Your task to perform on an android device: set the timer Image 0: 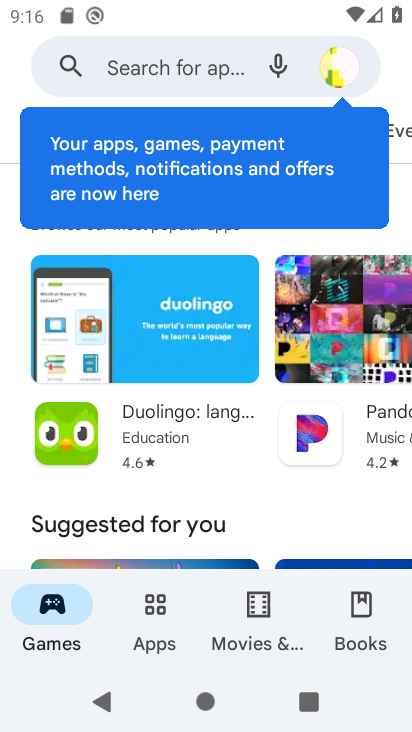
Step 0: press home button
Your task to perform on an android device: set the timer Image 1: 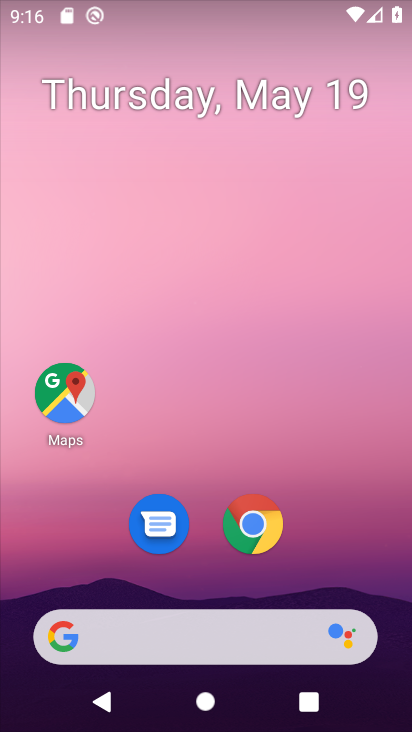
Step 1: drag from (205, 444) to (288, 61)
Your task to perform on an android device: set the timer Image 2: 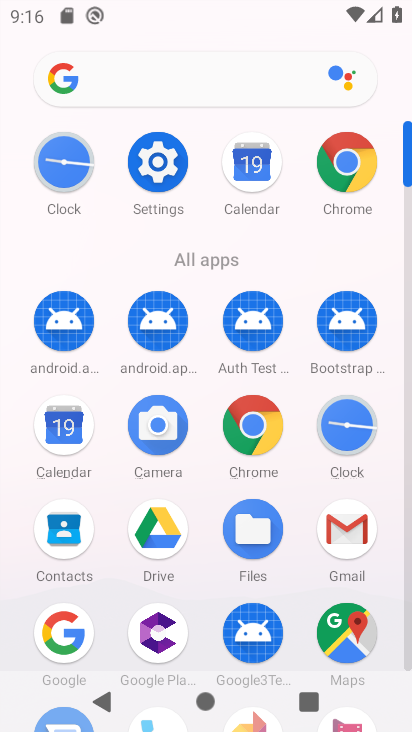
Step 2: click (73, 168)
Your task to perform on an android device: set the timer Image 3: 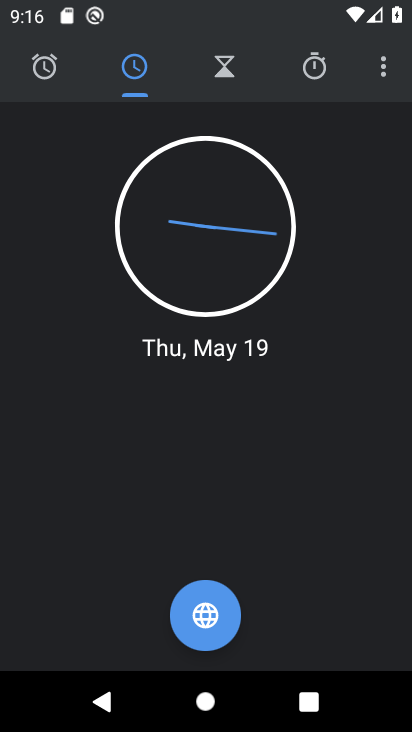
Step 3: click (220, 65)
Your task to perform on an android device: set the timer Image 4: 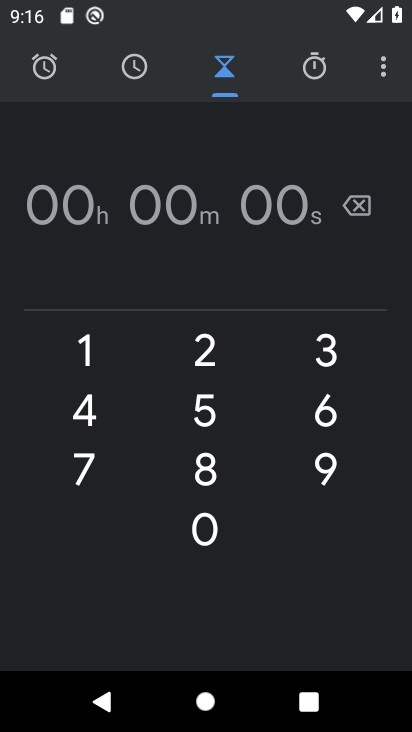
Step 4: click (88, 341)
Your task to perform on an android device: set the timer Image 5: 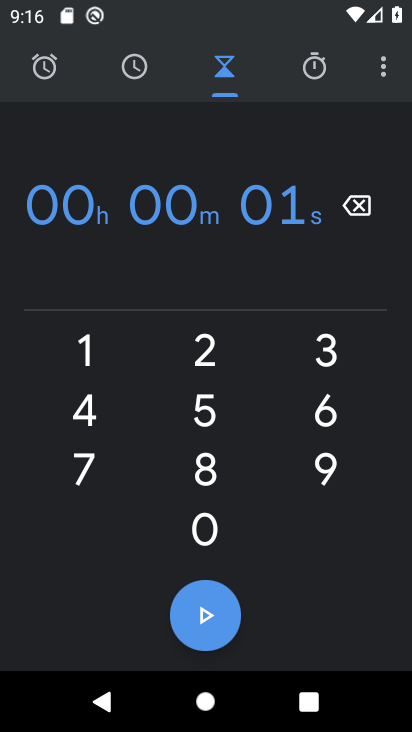
Step 5: task complete